Your task to perform on an android device: change notifications settings Image 0: 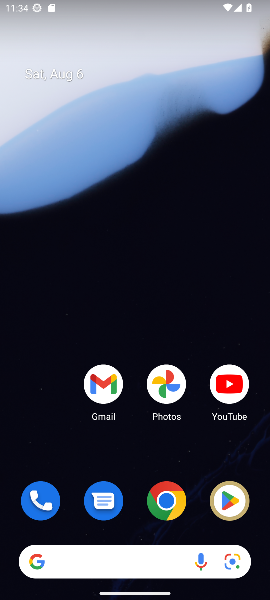
Step 0: drag from (69, 286) to (31, 88)
Your task to perform on an android device: change notifications settings Image 1: 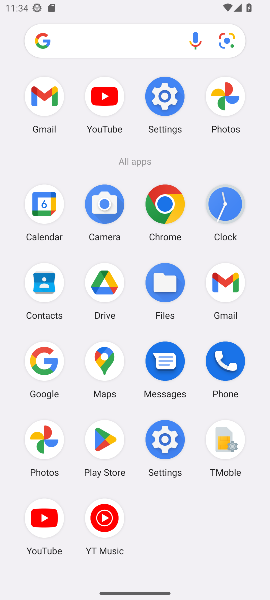
Step 1: click (160, 94)
Your task to perform on an android device: change notifications settings Image 2: 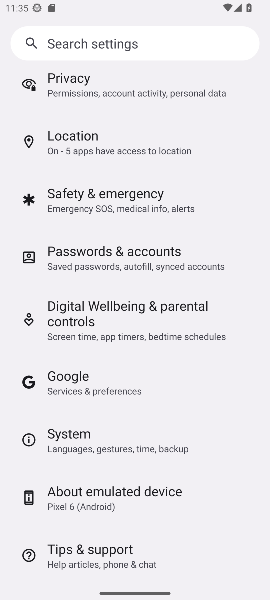
Step 2: drag from (101, 143) to (107, 338)
Your task to perform on an android device: change notifications settings Image 3: 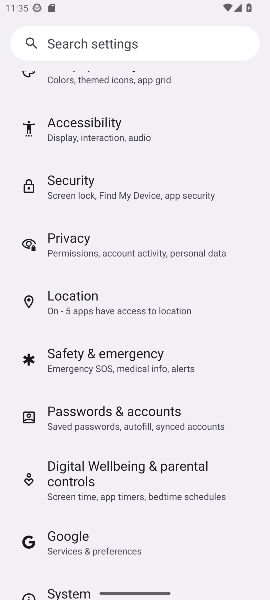
Step 3: drag from (114, 138) to (130, 407)
Your task to perform on an android device: change notifications settings Image 4: 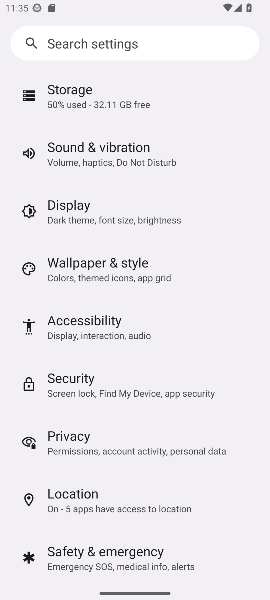
Step 4: drag from (130, 153) to (136, 384)
Your task to perform on an android device: change notifications settings Image 5: 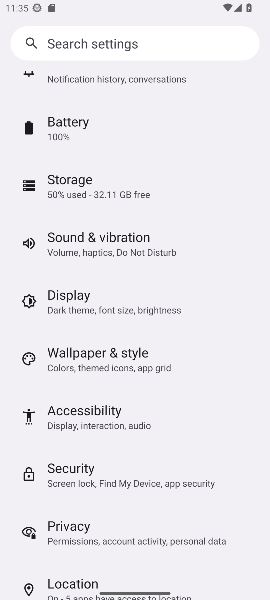
Step 5: drag from (141, 211) to (141, 469)
Your task to perform on an android device: change notifications settings Image 6: 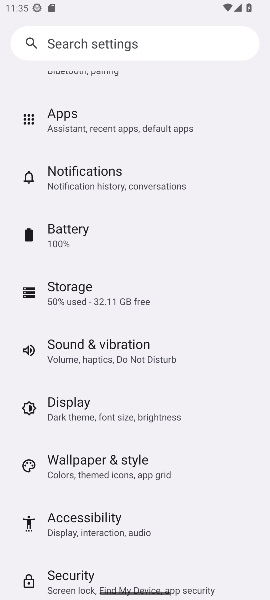
Step 6: click (97, 181)
Your task to perform on an android device: change notifications settings Image 7: 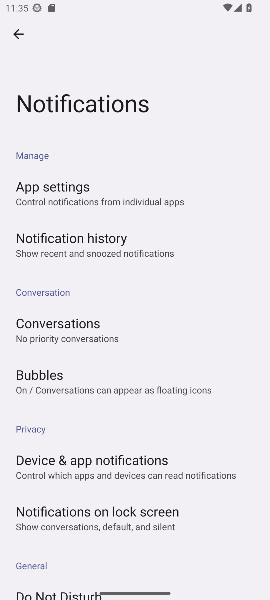
Step 7: click (108, 520)
Your task to perform on an android device: change notifications settings Image 8: 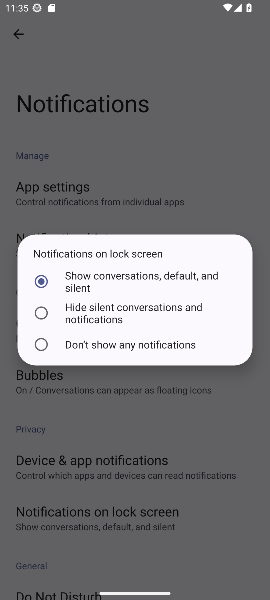
Step 8: click (37, 342)
Your task to perform on an android device: change notifications settings Image 9: 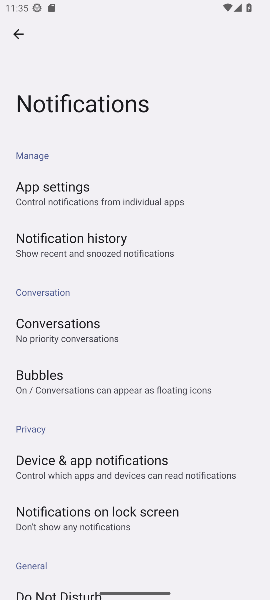
Step 9: task complete